Your task to perform on an android device: Open Yahoo.com Image 0: 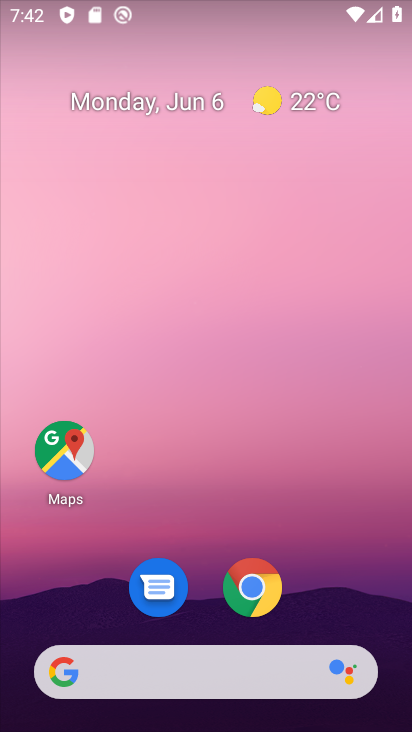
Step 0: click (252, 602)
Your task to perform on an android device: Open Yahoo.com Image 1: 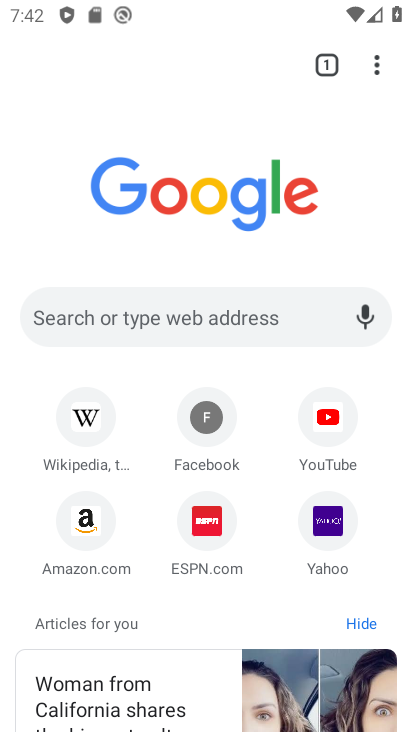
Step 1: click (331, 509)
Your task to perform on an android device: Open Yahoo.com Image 2: 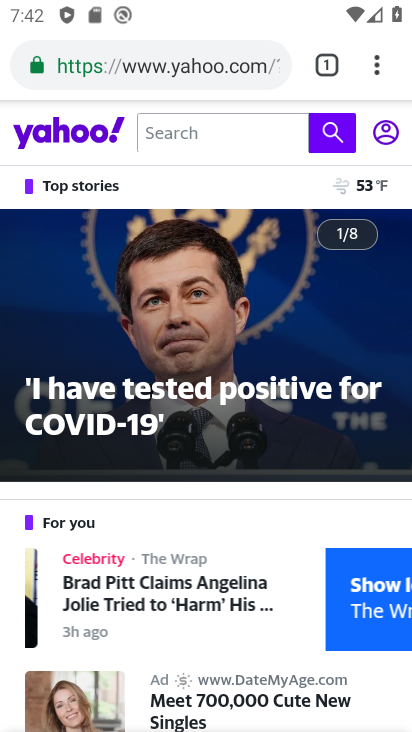
Step 2: task complete